Your task to perform on an android device: set the timer Image 0: 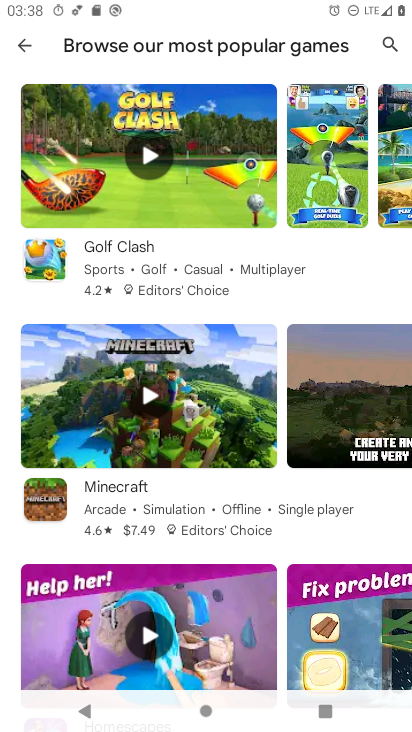
Step 0: press home button
Your task to perform on an android device: set the timer Image 1: 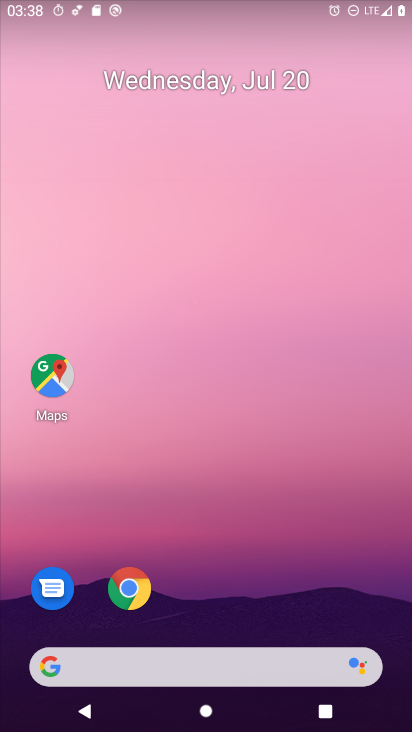
Step 1: drag from (238, 628) to (185, 42)
Your task to perform on an android device: set the timer Image 2: 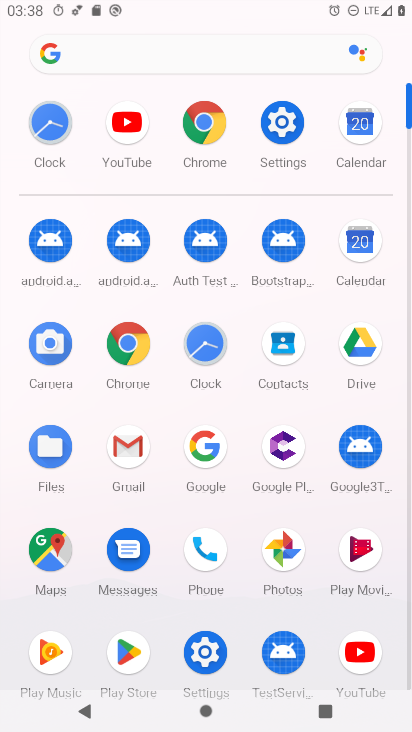
Step 2: click (215, 364)
Your task to perform on an android device: set the timer Image 3: 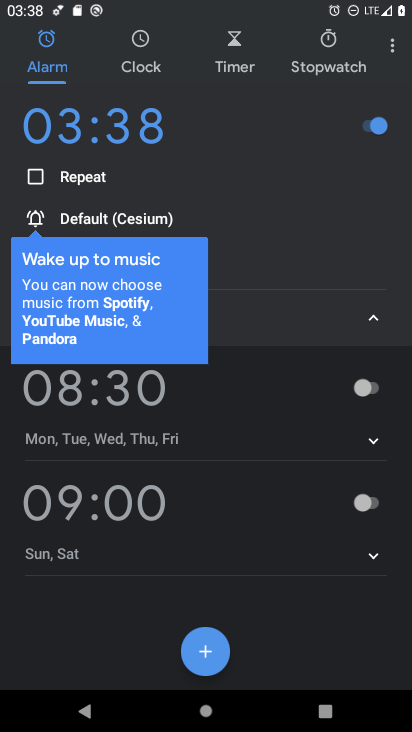
Step 3: click (236, 27)
Your task to perform on an android device: set the timer Image 4: 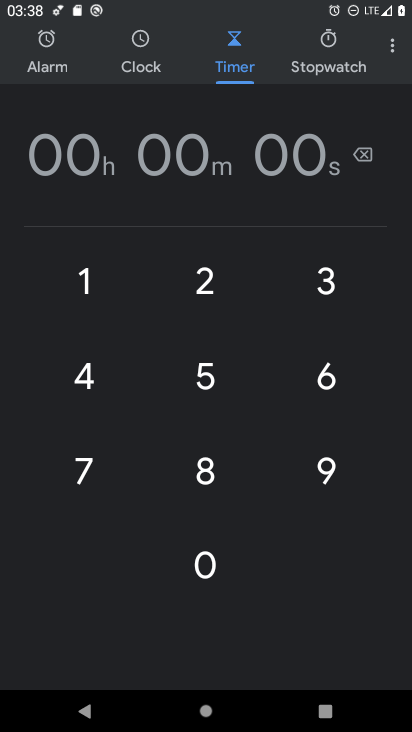
Step 4: click (204, 283)
Your task to perform on an android device: set the timer Image 5: 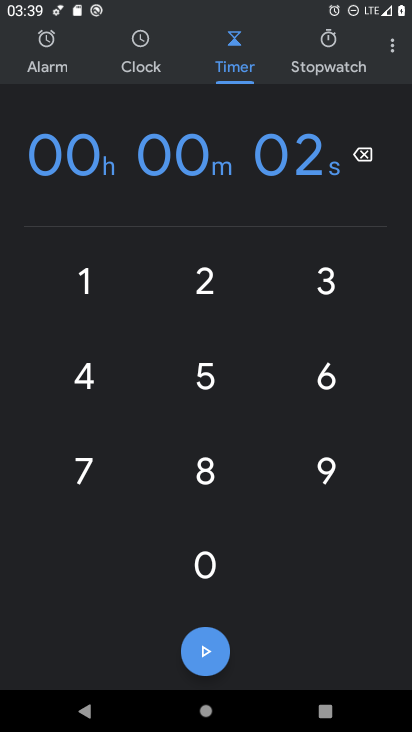
Step 5: click (212, 359)
Your task to perform on an android device: set the timer Image 6: 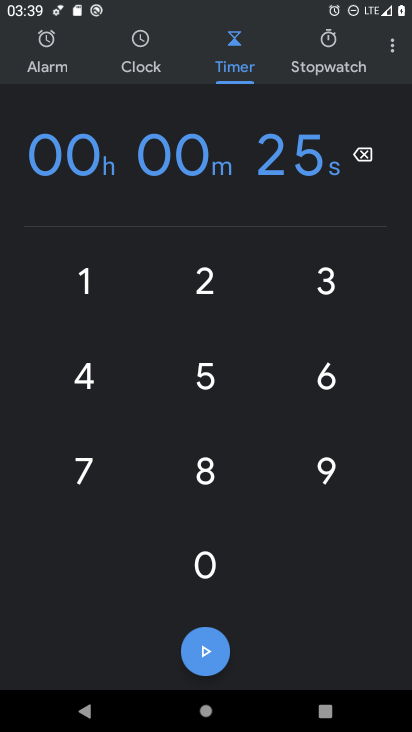
Step 6: click (199, 644)
Your task to perform on an android device: set the timer Image 7: 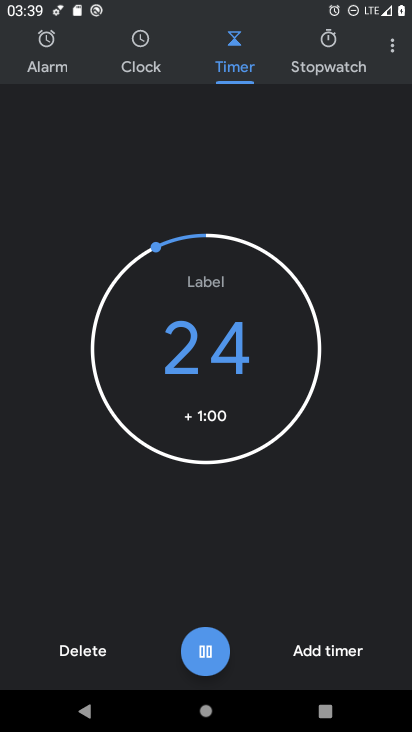
Step 7: click (199, 644)
Your task to perform on an android device: set the timer Image 8: 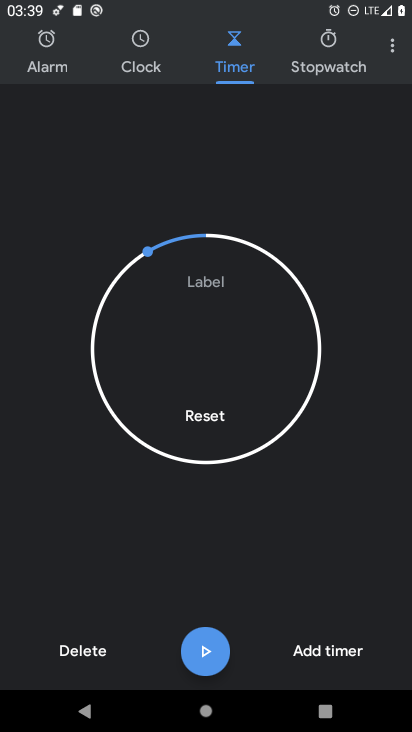
Step 8: task complete